Your task to perform on an android device: change text size in settings app Image 0: 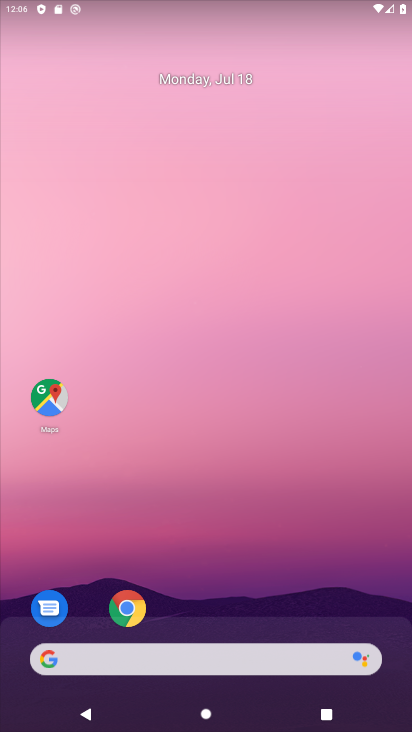
Step 0: drag from (226, 639) to (255, 94)
Your task to perform on an android device: change text size in settings app Image 1: 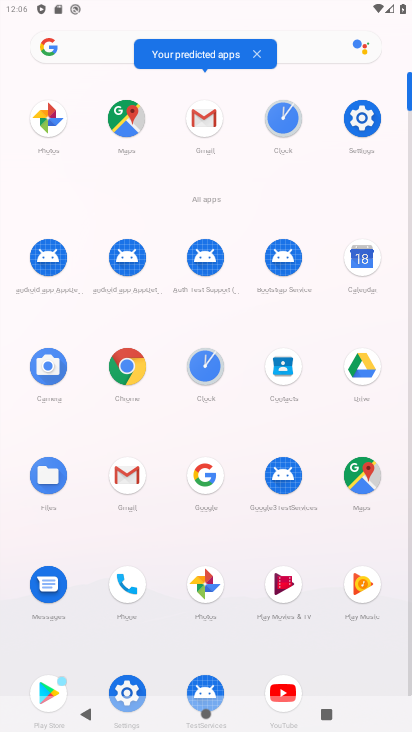
Step 1: click (113, 690)
Your task to perform on an android device: change text size in settings app Image 2: 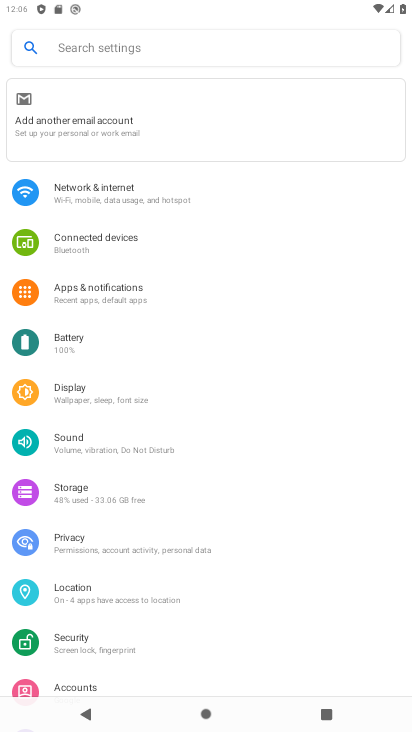
Step 2: click (171, 401)
Your task to perform on an android device: change text size in settings app Image 3: 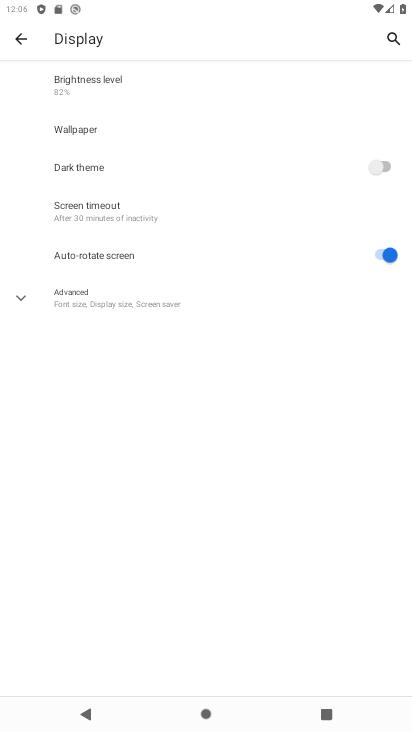
Step 3: click (167, 284)
Your task to perform on an android device: change text size in settings app Image 4: 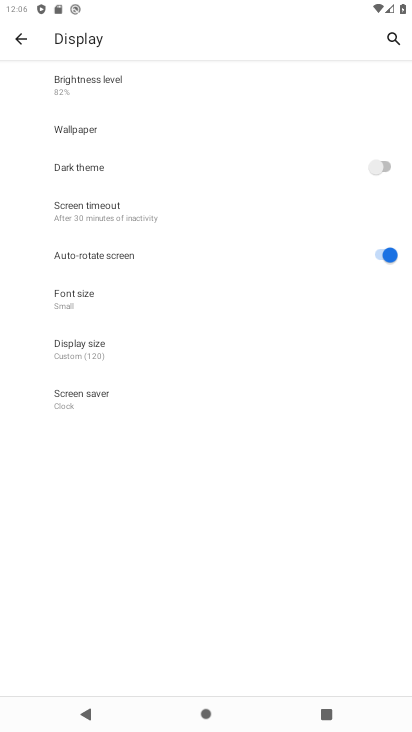
Step 4: click (130, 289)
Your task to perform on an android device: change text size in settings app Image 5: 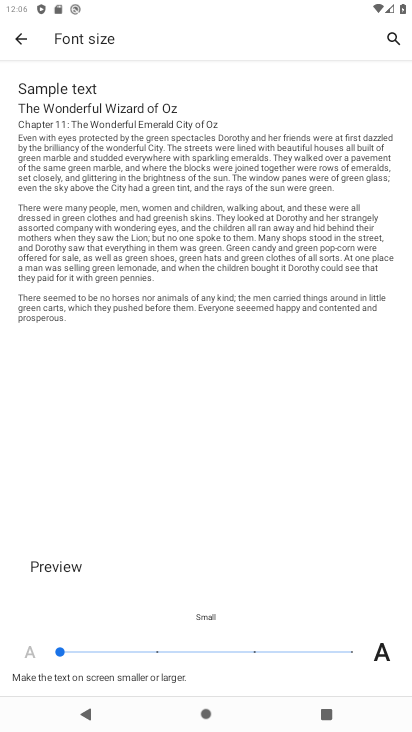
Step 5: click (159, 647)
Your task to perform on an android device: change text size in settings app Image 6: 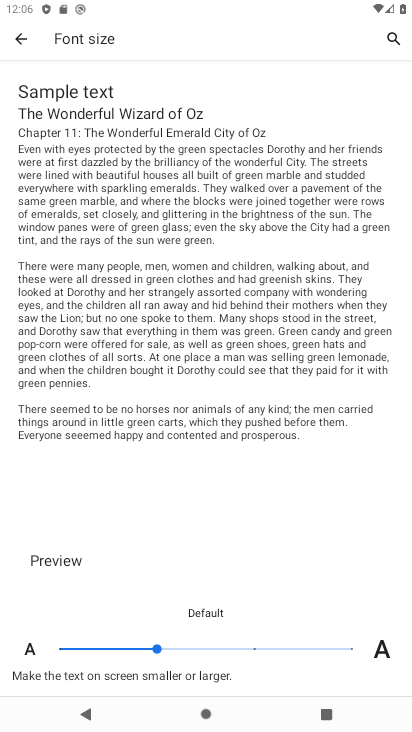
Step 6: click (268, 656)
Your task to perform on an android device: change text size in settings app Image 7: 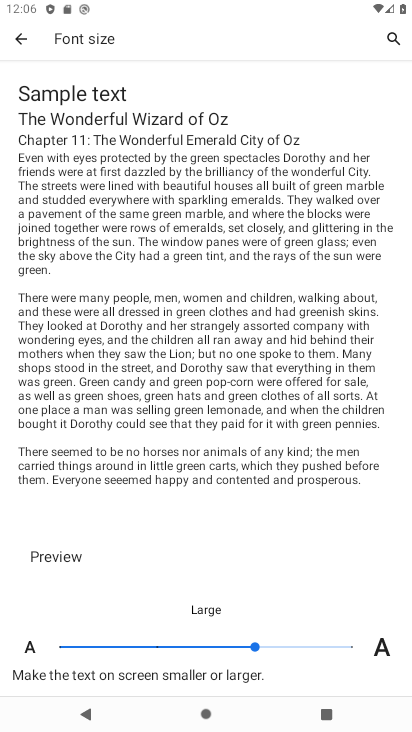
Step 7: task complete